Your task to perform on an android device: change alarm snooze length Image 0: 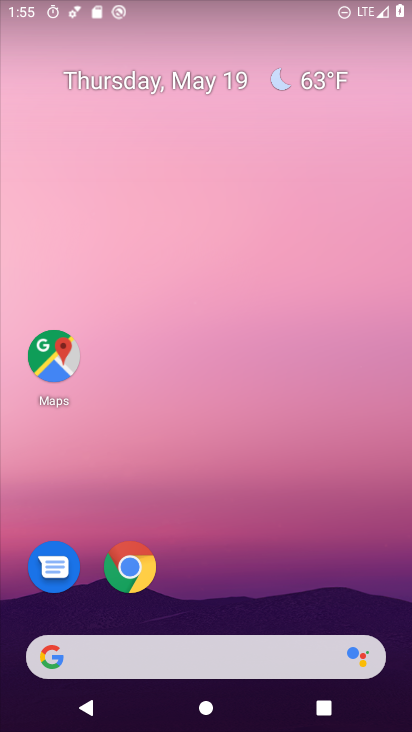
Step 0: press home button
Your task to perform on an android device: change alarm snooze length Image 1: 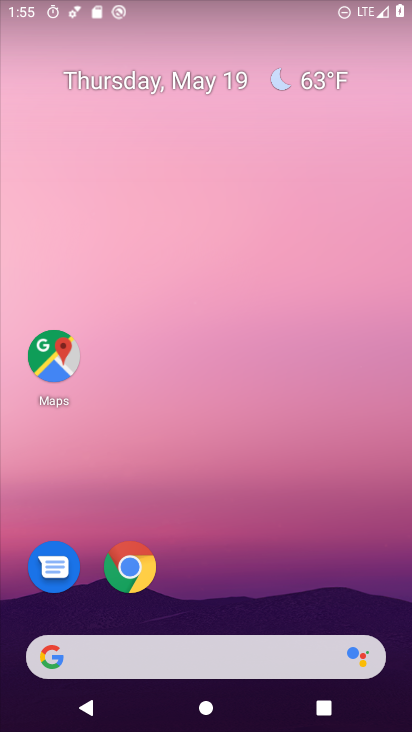
Step 1: drag from (159, 662) to (304, 216)
Your task to perform on an android device: change alarm snooze length Image 2: 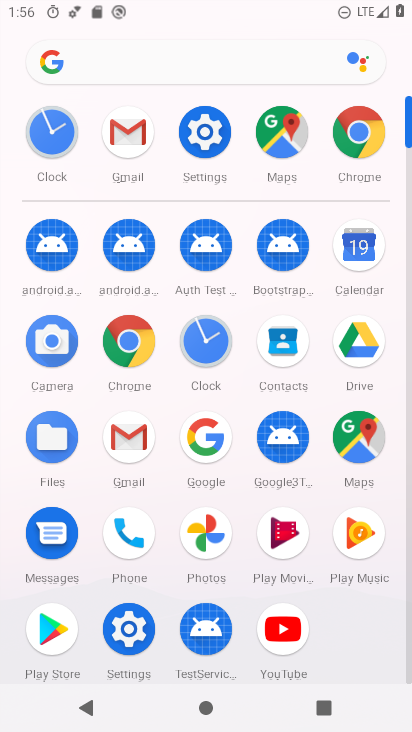
Step 2: click (202, 342)
Your task to perform on an android device: change alarm snooze length Image 3: 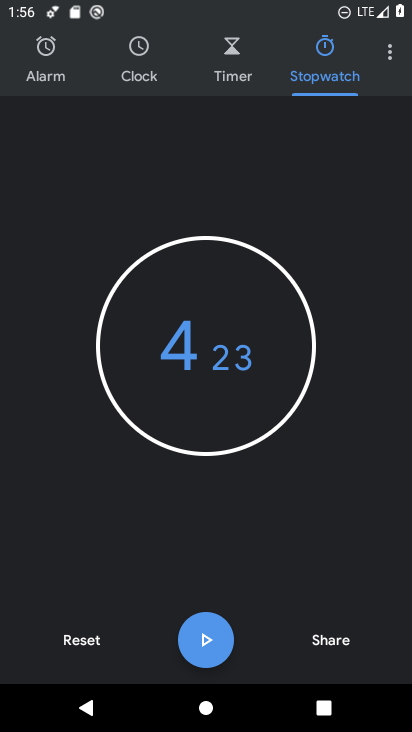
Step 3: click (390, 58)
Your task to perform on an android device: change alarm snooze length Image 4: 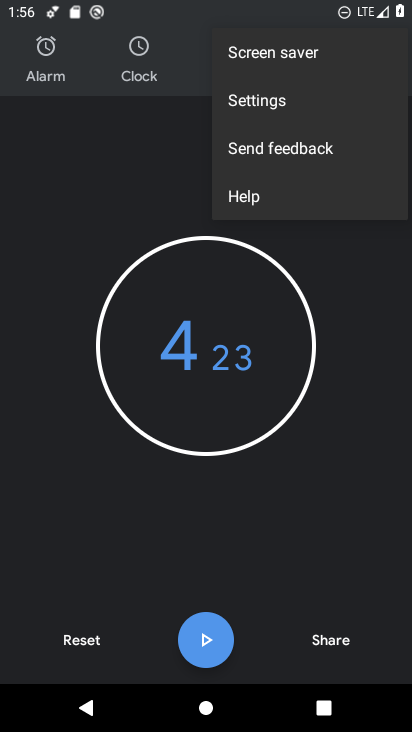
Step 4: click (289, 107)
Your task to perform on an android device: change alarm snooze length Image 5: 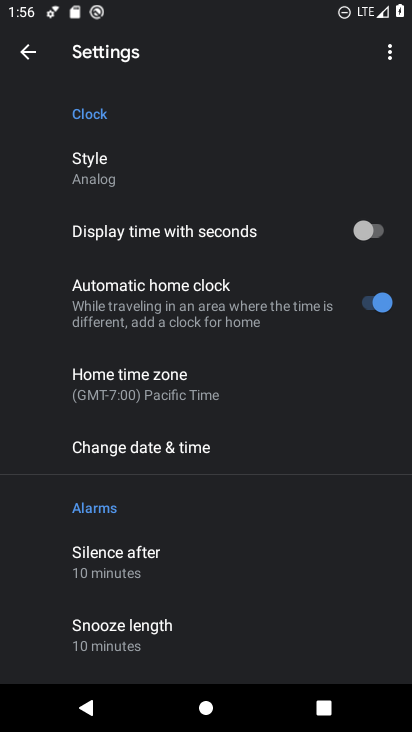
Step 5: drag from (207, 598) to (346, 270)
Your task to perform on an android device: change alarm snooze length Image 6: 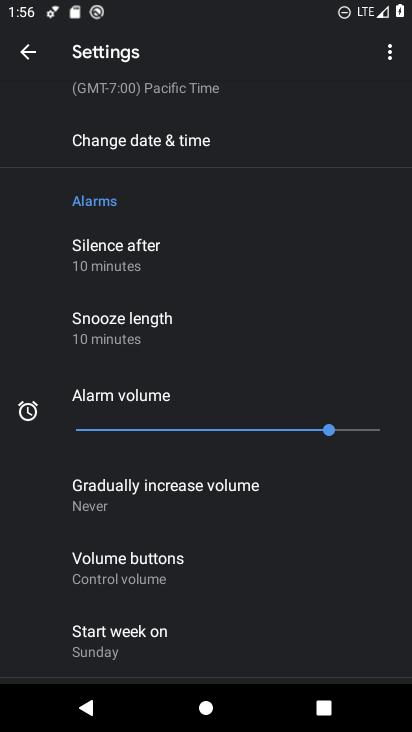
Step 6: click (147, 316)
Your task to perform on an android device: change alarm snooze length Image 7: 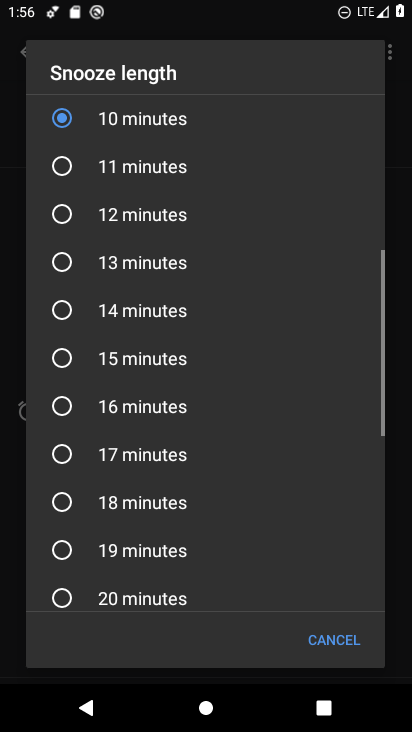
Step 7: click (64, 357)
Your task to perform on an android device: change alarm snooze length Image 8: 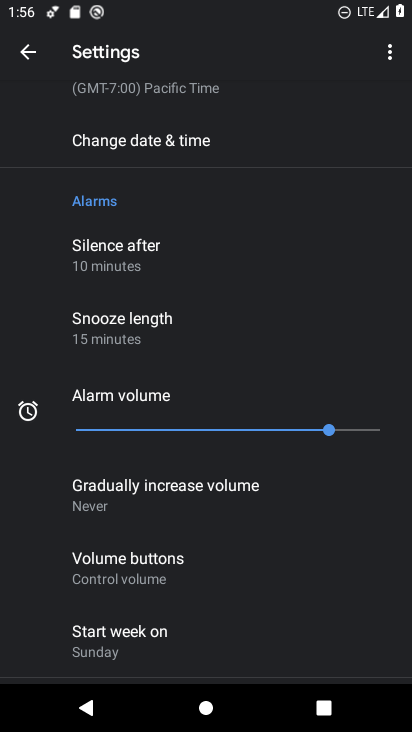
Step 8: task complete